Your task to perform on an android device: install app "Google Photos" Image 0: 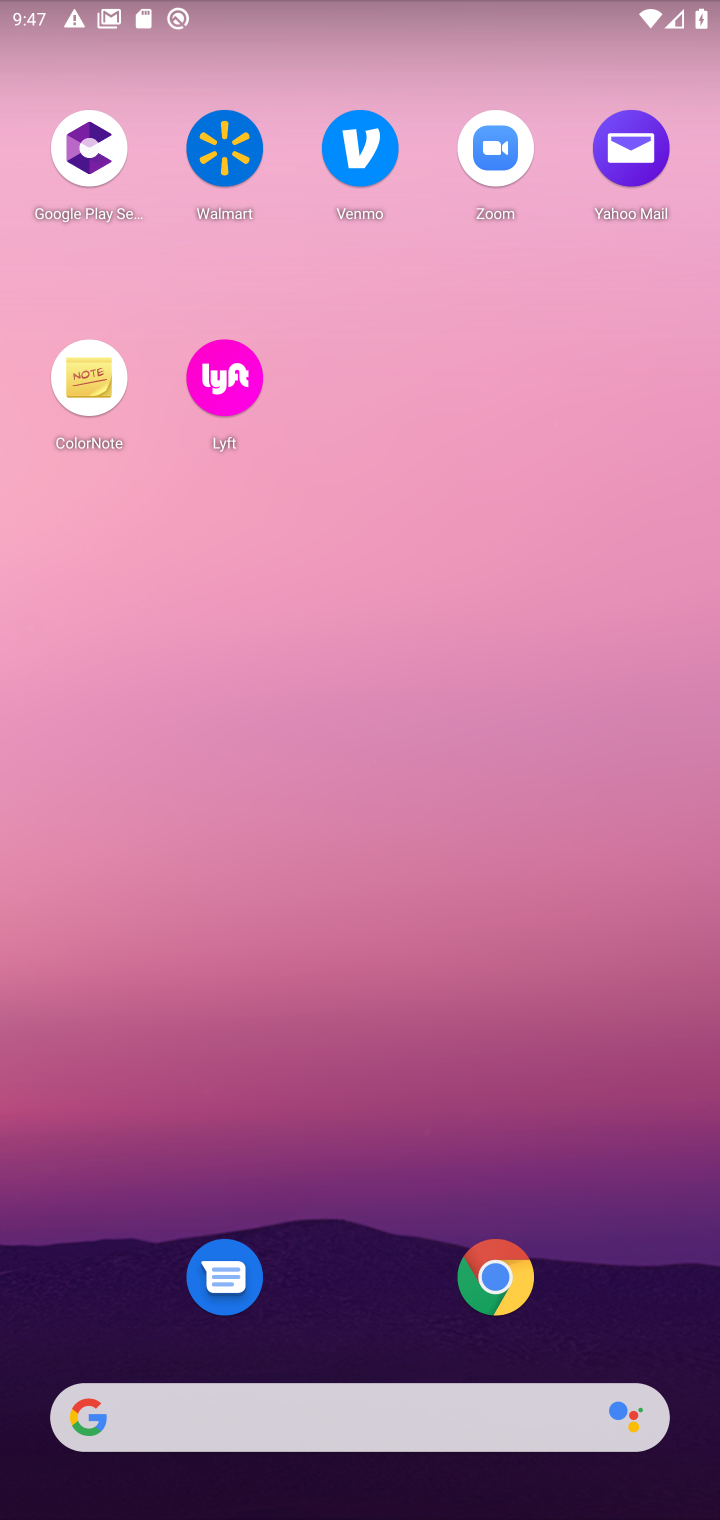
Step 0: drag from (376, 1370) to (295, 24)
Your task to perform on an android device: install app "Google Photos" Image 1: 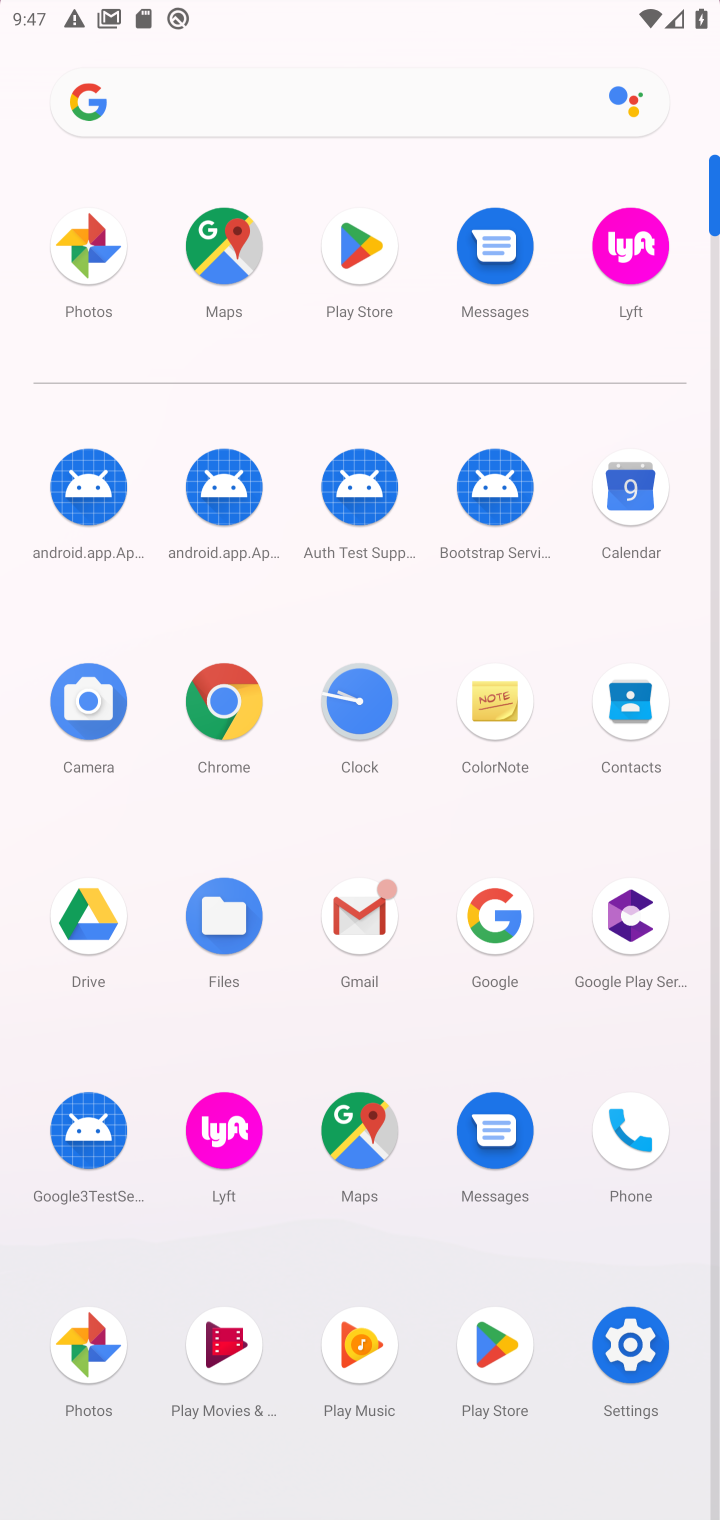
Step 1: click (94, 1359)
Your task to perform on an android device: install app "Google Photos" Image 2: 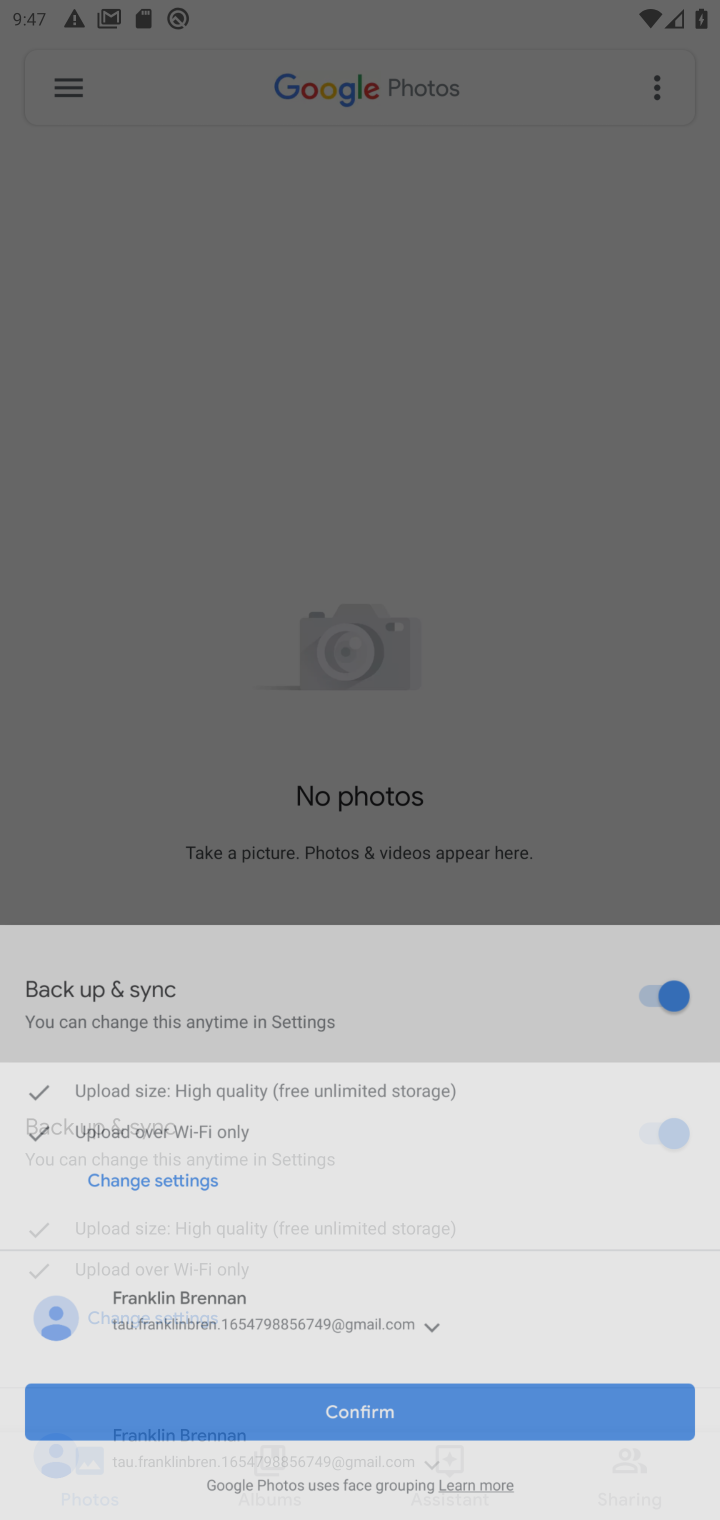
Step 2: click (211, 1395)
Your task to perform on an android device: install app "Google Photos" Image 3: 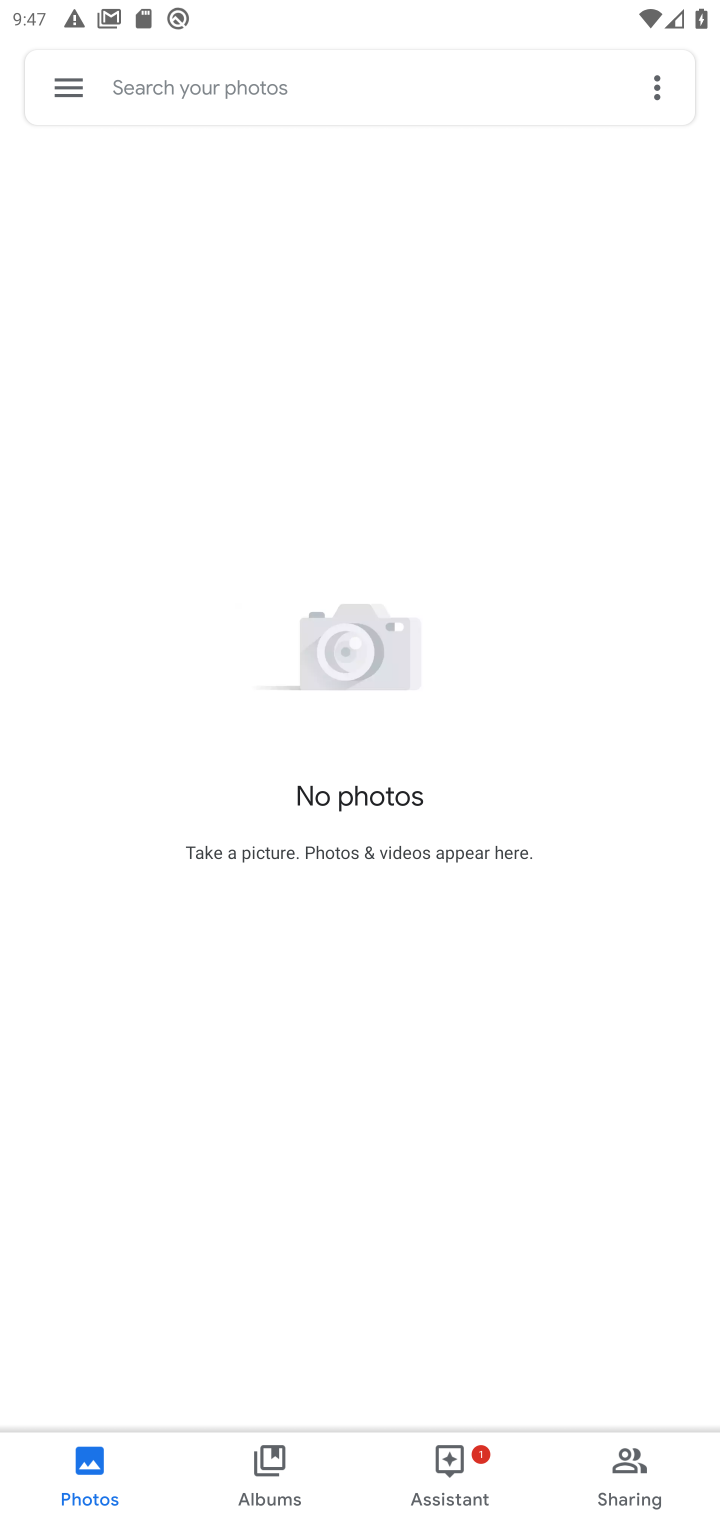
Step 3: task complete